Your task to perform on an android device: Play some music on YouTube Image 0: 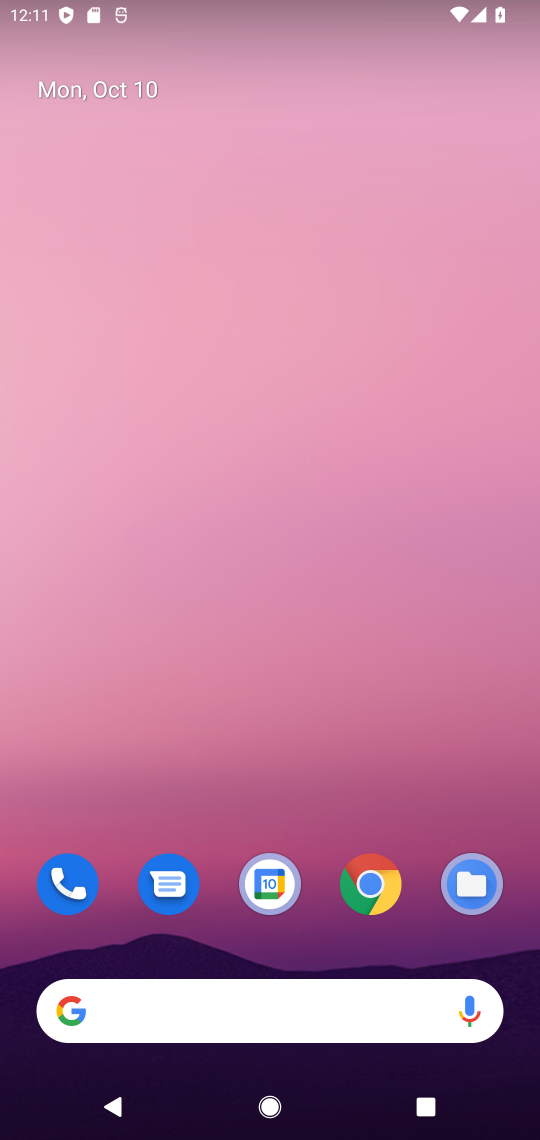
Step 0: click (363, 894)
Your task to perform on an android device: Play some music on YouTube Image 1: 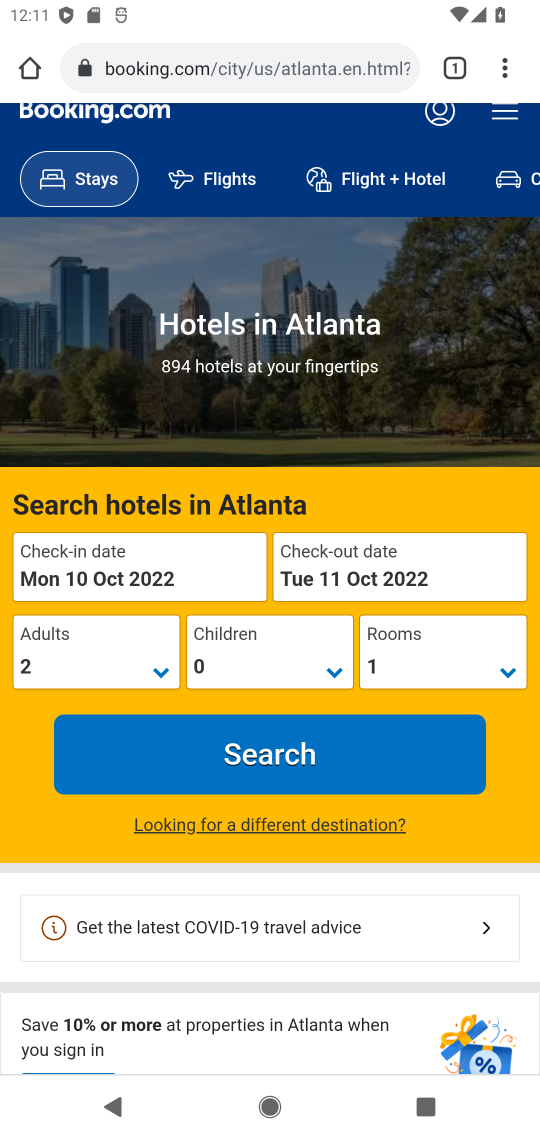
Step 1: click (338, 57)
Your task to perform on an android device: Play some music on YouTube Image 2: 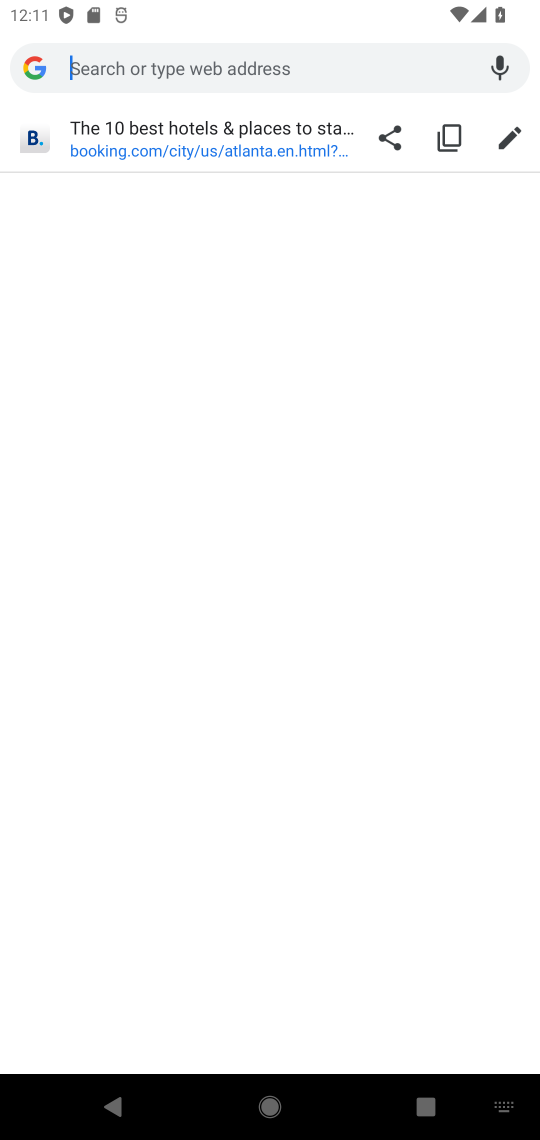
Step 2: type "y"
Your task to perform on an android device: Play some music on YouTube Image 3: 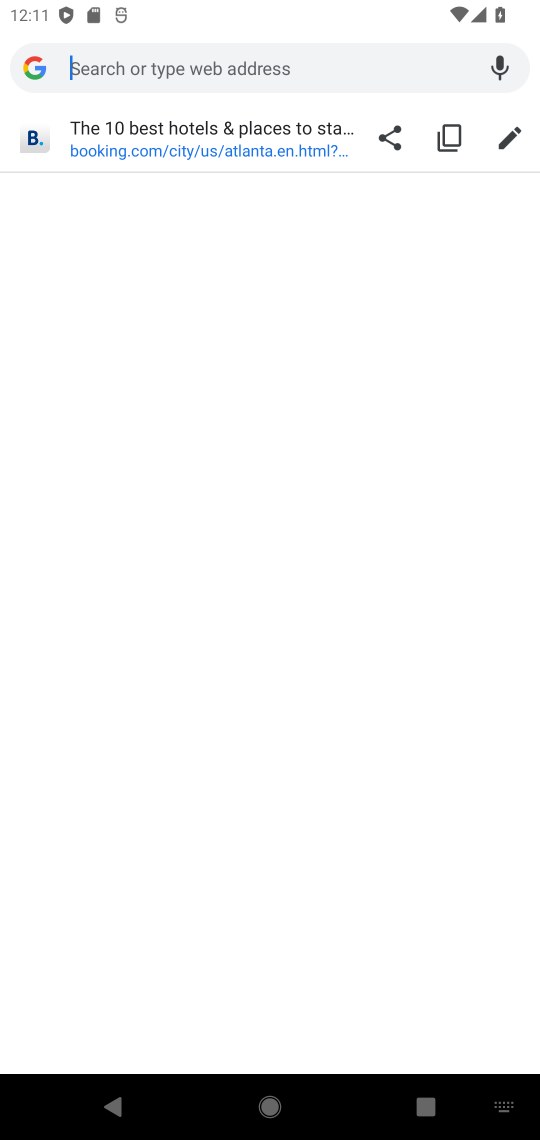
Step 3: click (391, 81)
Your task to perform on an android device: Play some music on YouTube Image 4: 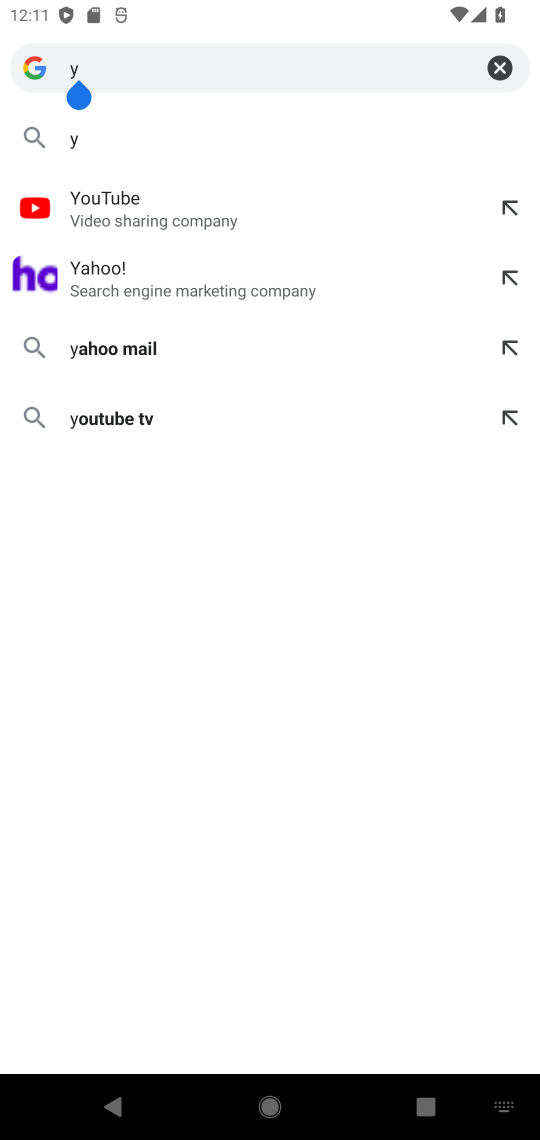
Step 4: click (495, 62)
Your task to perform on an android device: Play some music on YouTube Image 5: 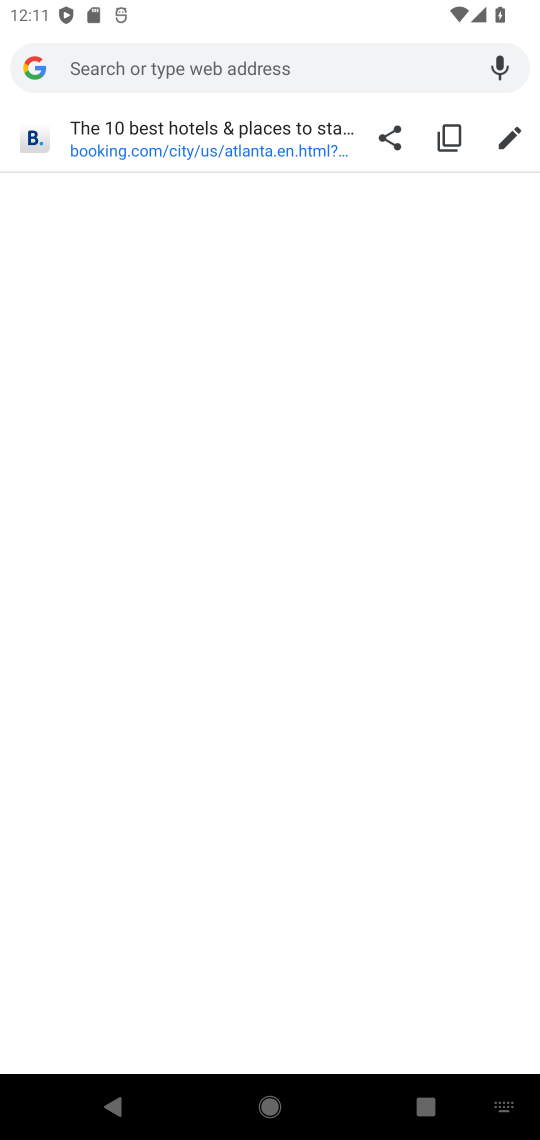
Step 5: press back button
Your task to perform on an android device: Play some music on YouTube Image 6: 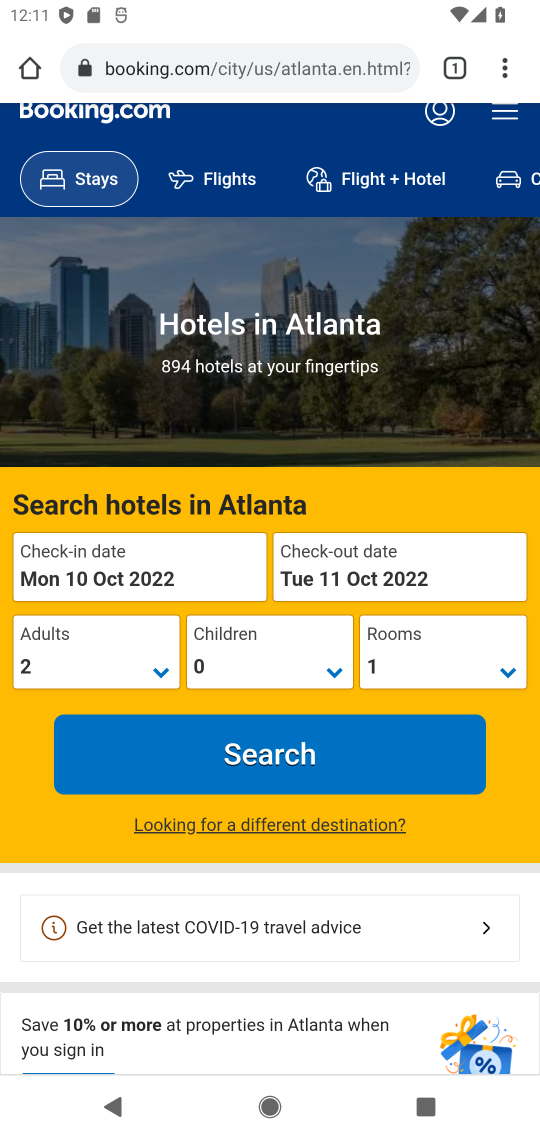
Step 6: click (451, 74)
Your task to perform on an android device: Play some music on YouTube Image 7: 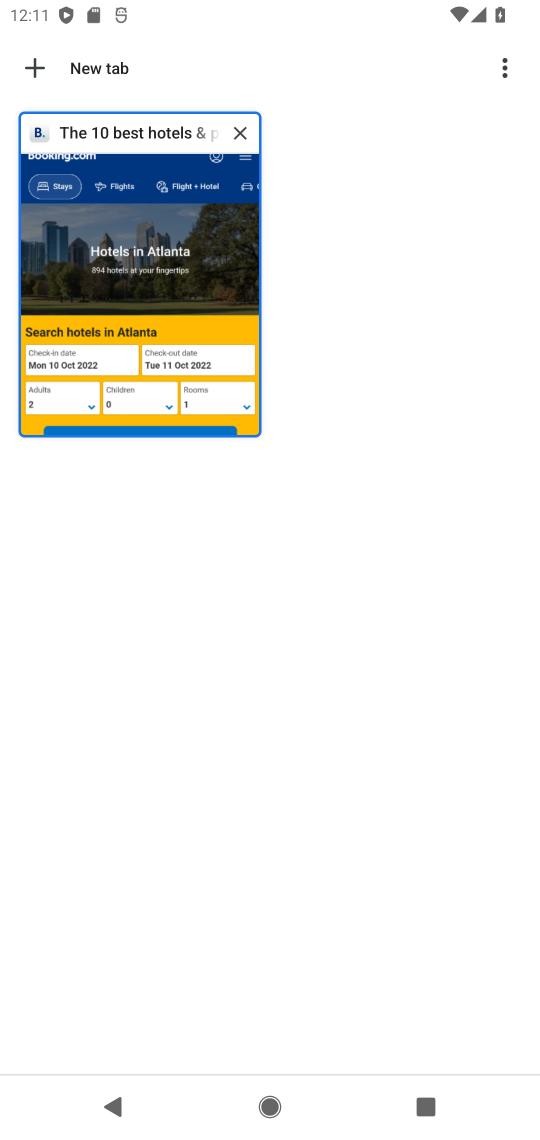
Step 7: click (243, 132)
Your task to perform on an android device: Play some music on YouTube Image 8: 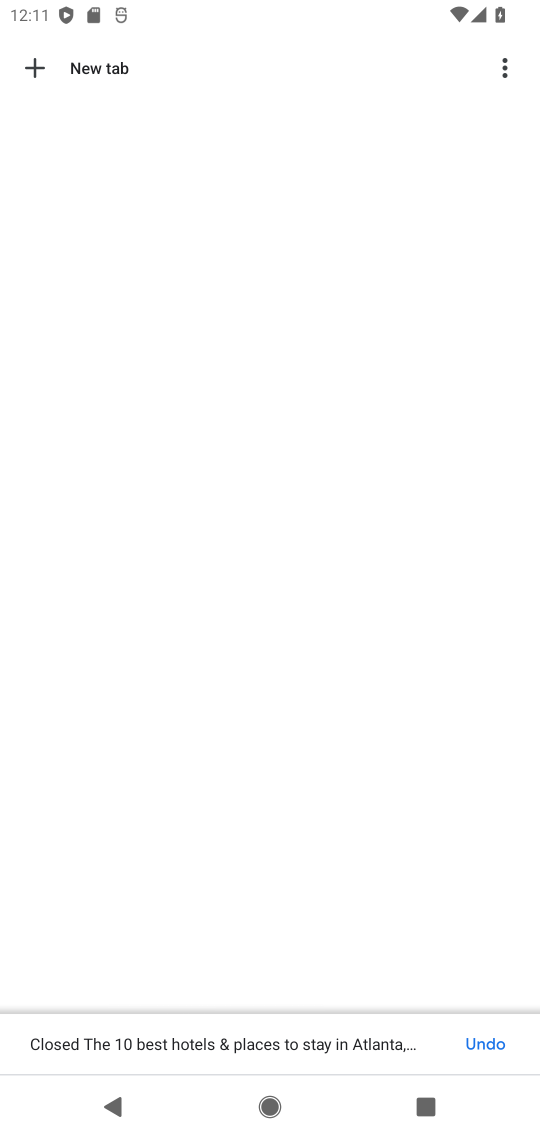
Step 8: click (29, 63)
Your task to perform on an android device: Play some music on YouTube Image 9: 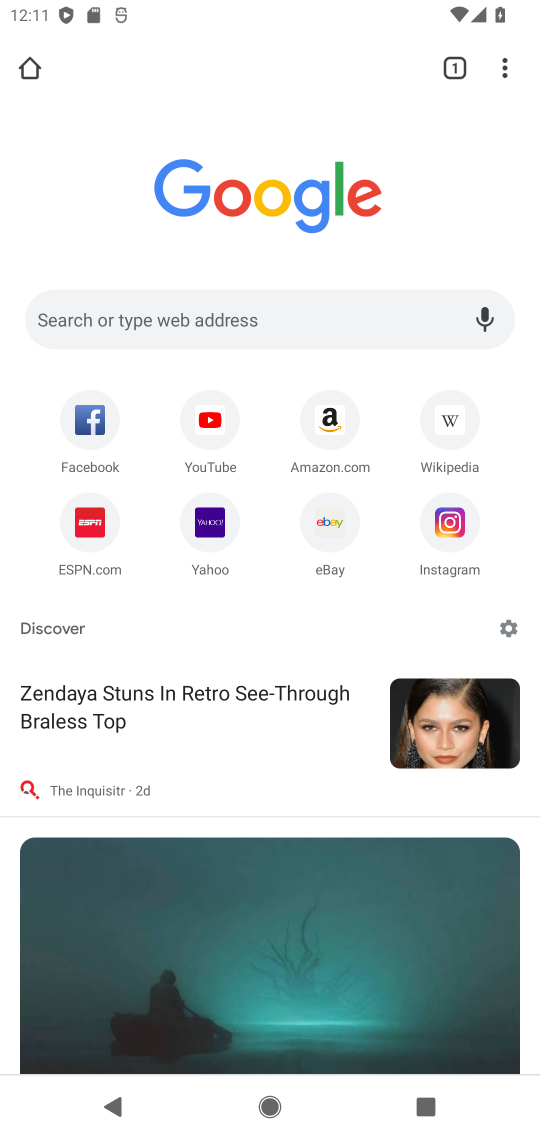
Step 9: click (205, 422)
Your task to perform on an android device: Play some music on YouTube Image 10: 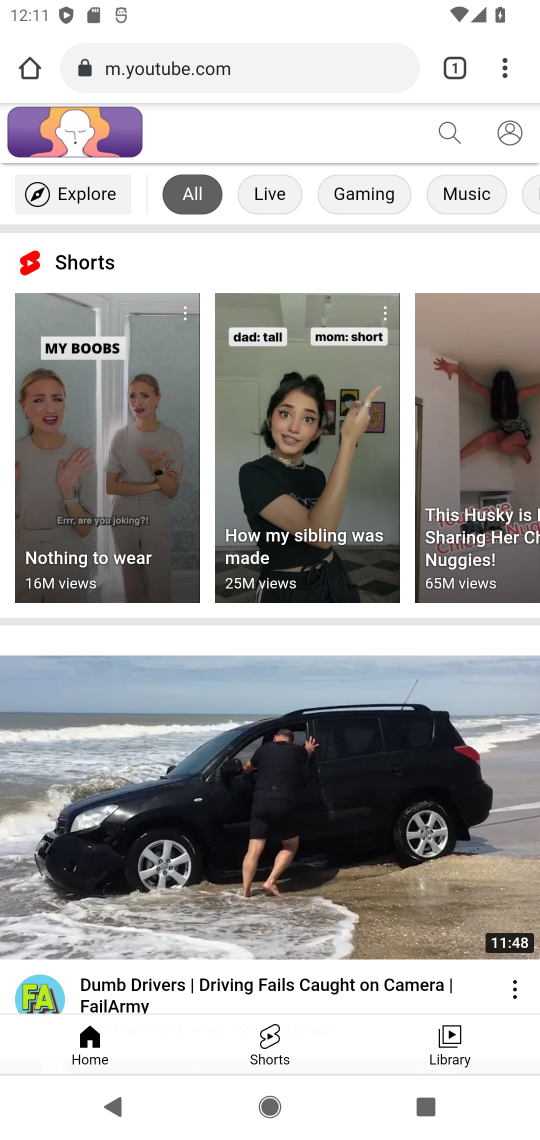
Step 10: click (468, 194)
Your task to perform on an android device: Play some music on YouTube Image 11: 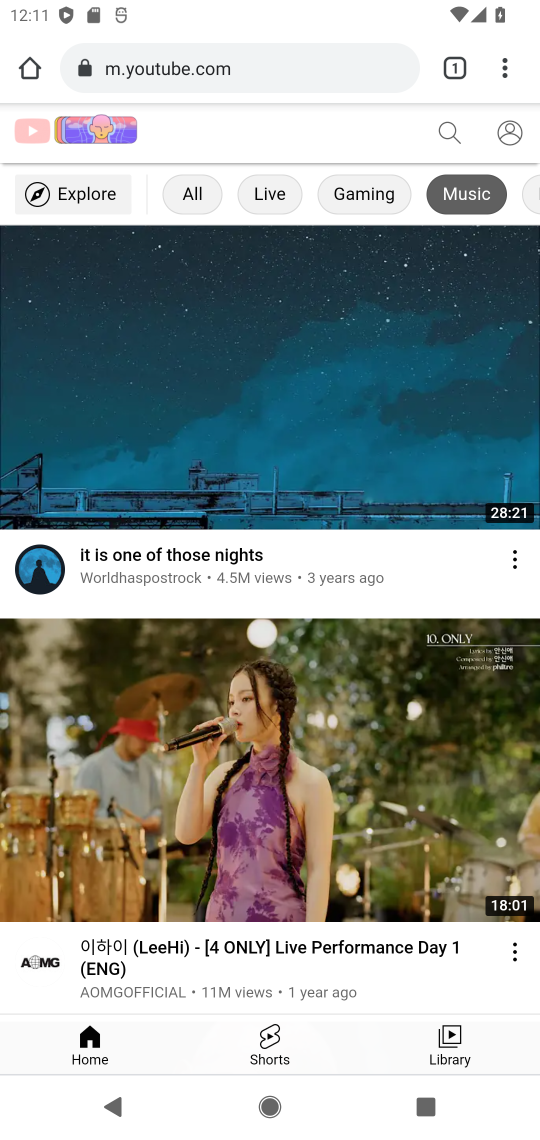
Step 11: click (224, 444)
Your task to perform on an android device: Play some music on YouTube Image 12: 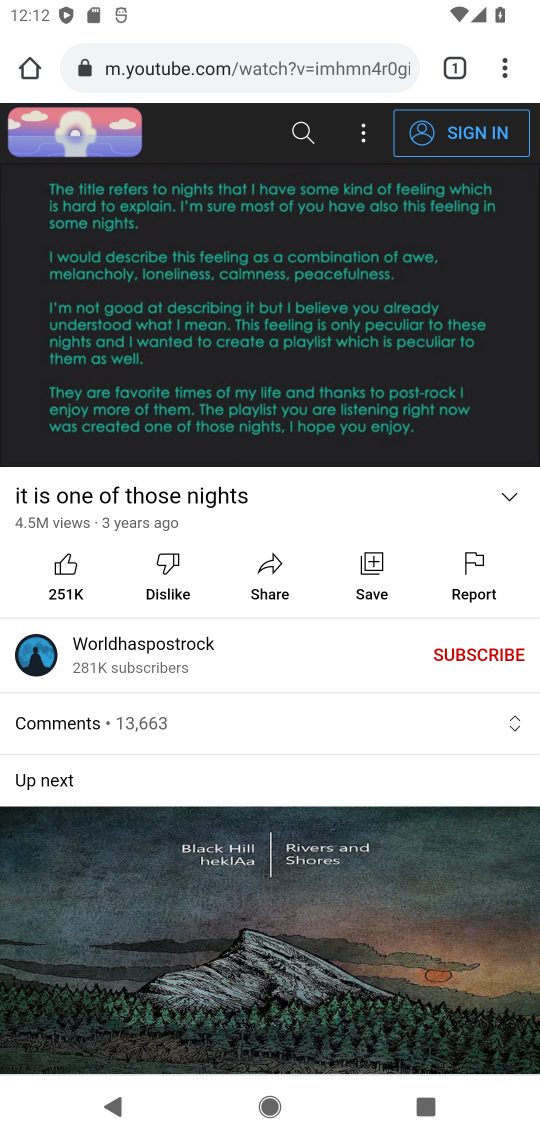
Step 12: task complete